Your task to perform on an android device: Go to network settings Image 0: 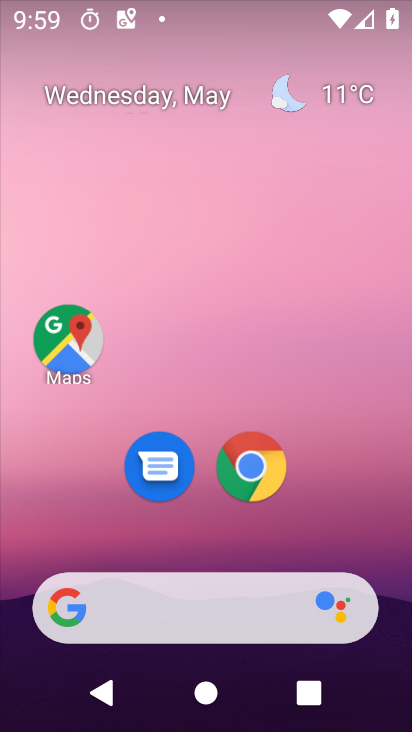
Step 0: drag from (303, 540) to (207, 79)
Your task to perform on an android device: Go to network settings Image 1: 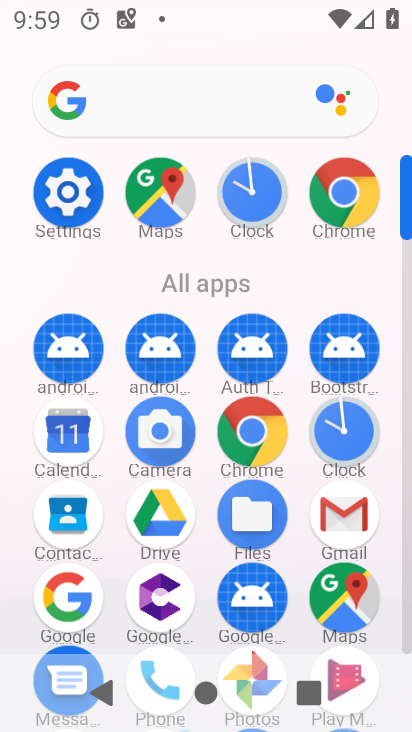
Step 1: click (69, 200)
Your task to perform on an android device: Go to network settings Image 2: 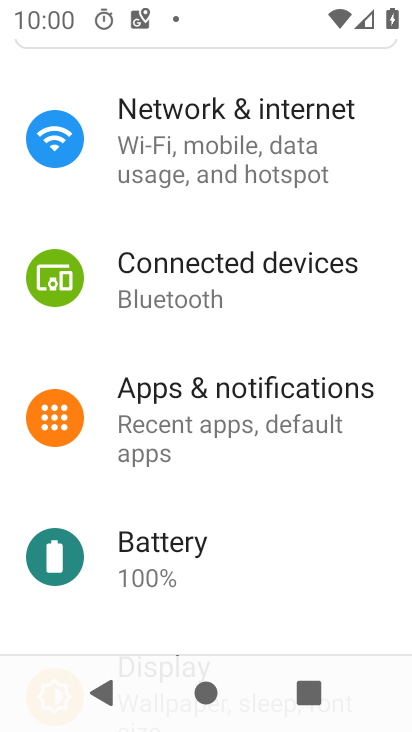
Step 2: click (217, 181)
Your task to perform on an android device: Go to network settings Image 3: 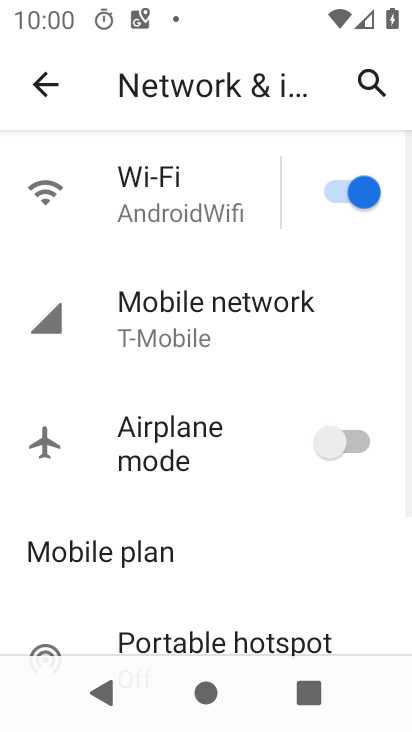
Step 3: task complete